Your task to perform on an android device: empty trash in the gmail app Image 0: 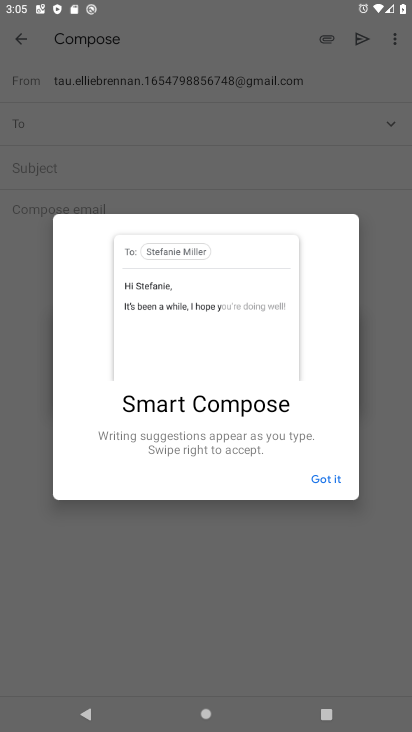
Step 0: press home button
Your task to perform on an android device: empty trash in the gmail app Image 1: 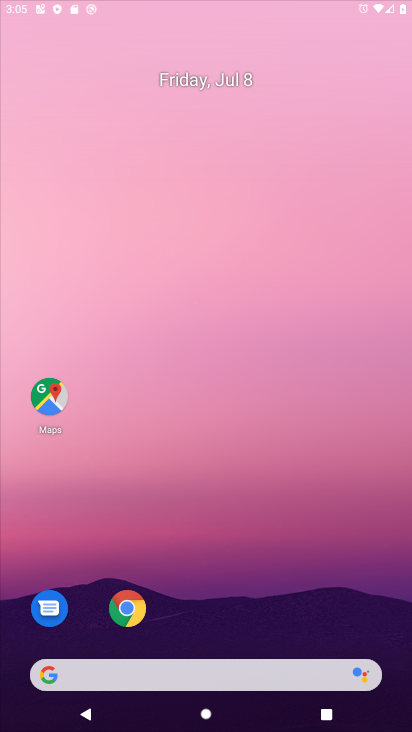
Step 1: drag from (294, 647) to (283, 24)
Your task to perform on an android device: empty trash in the gmail app Image 2: 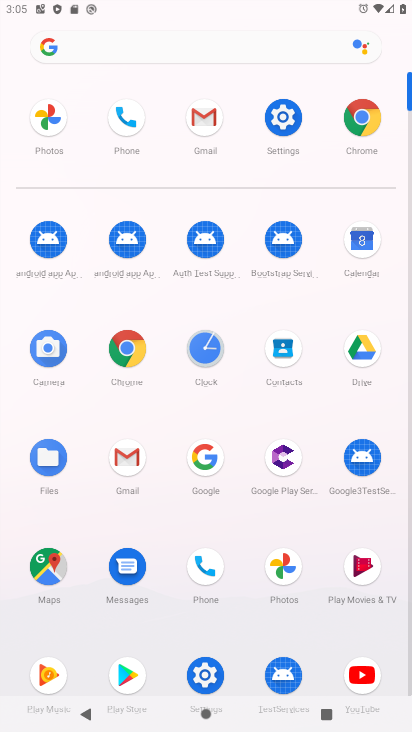
Step 2: click (132, 453)
Your task to perform on an android device: empty trash in the gmail app Image 3: 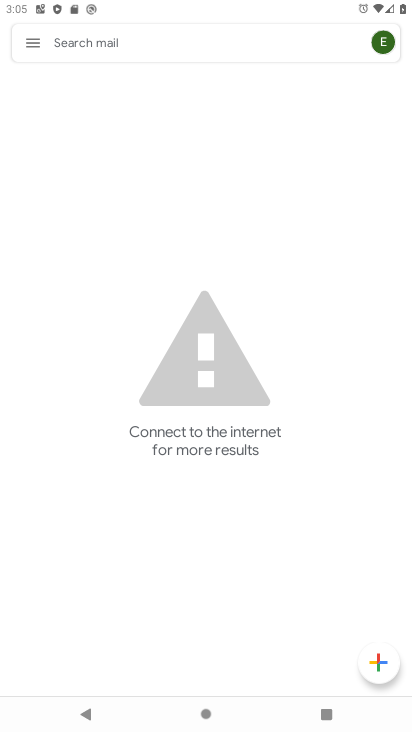
Step 3: click (32, 44)
Your task to perform on an android device: empty trash in the gmail app Image 4: 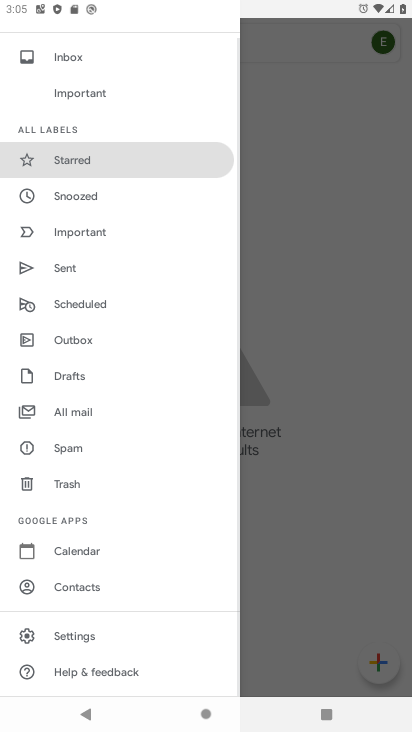
Step 4: drag from (129, 297) to (167, 576)
Your task to perform on an android device: empty trash in the gmail app Image 5: 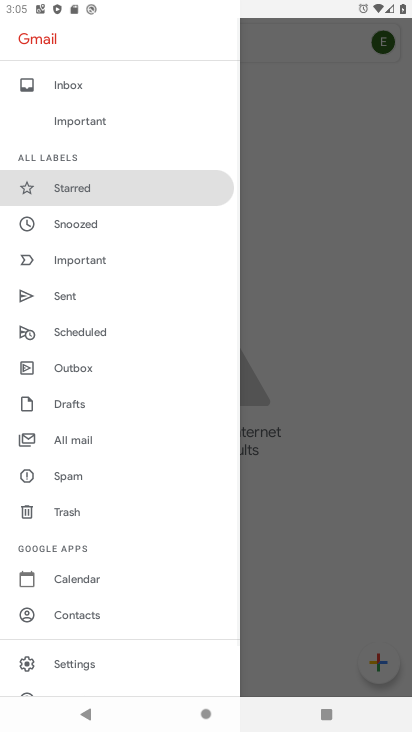
Step 5: click (70, 507)
Your task to perform on an android device: empty trash in the gmail app Image 6: 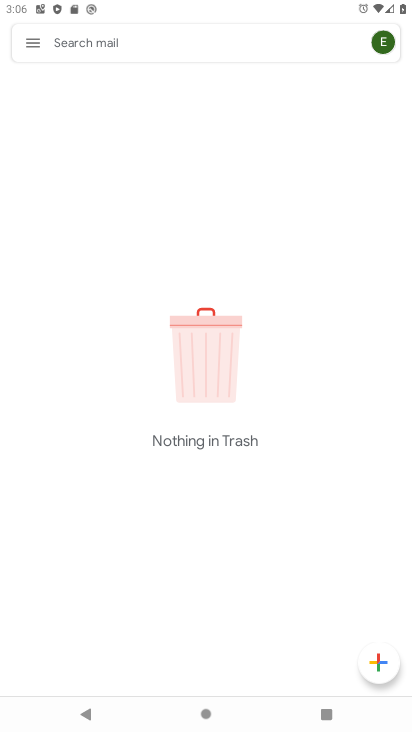
Step 6: click (25, 37)
Your task to perform on an android device: empty trash in the gmail app Image 7: 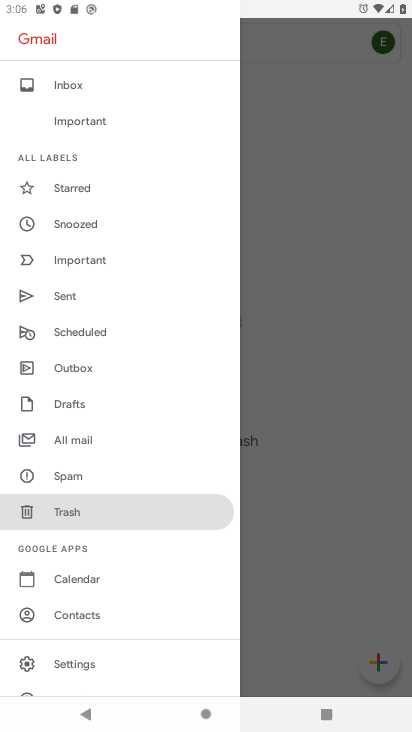
Step 7: click (73, 509)
Your task to perform on an android device: empty trash in the gmail app Image 8: 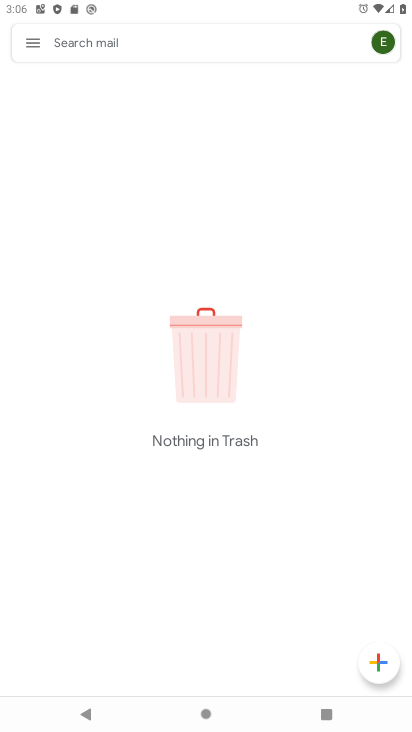
Step 8: task complete